Your task to perform on an android device: Search for "bose soundsport free" on newegg.com, select the first entry, and add it to the cart. Image 0: 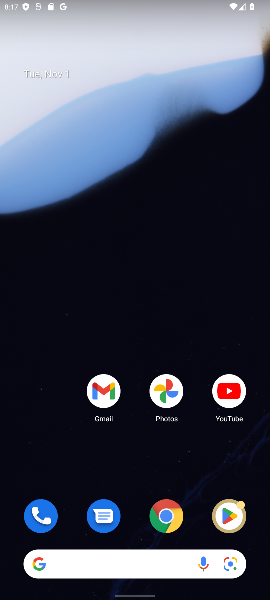
Step 0: press home button
Your task to perform on an android device: Search for "bose soundsport free" on newegg.com, select the first entry, and add it to the cart. Image 1: 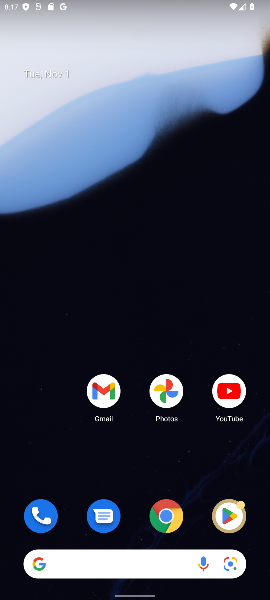
Step 1: drag from (143, 470) to (141, 73)
Your task to perform on an android device: Search for "bose soundsport free" on newegg.com, select the first entry, and add it to the cart. Image 2: 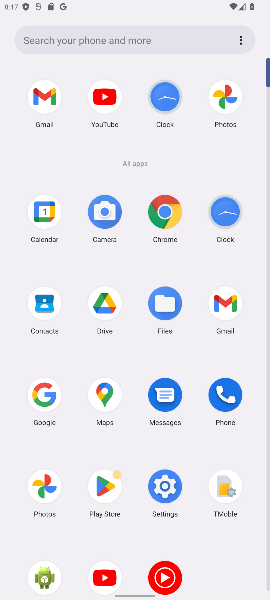
Step 2: click (168, 207)
Your task to perform on an android device: Search for "bose soundsport free" on newegg.com, select the first entry, and add it to the cart. Image 3: 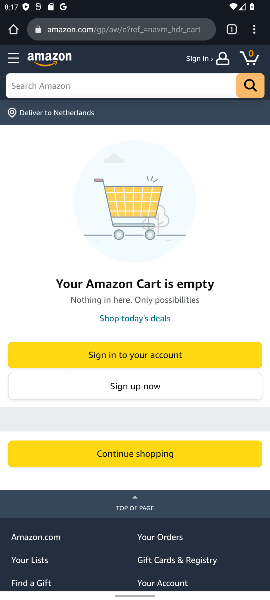
Step 3: click (85, 26)
Your task to perform on an android device: Search for "bose soundsport free" on newegg.com, select the first entry, and add it to the cart. Image 4: 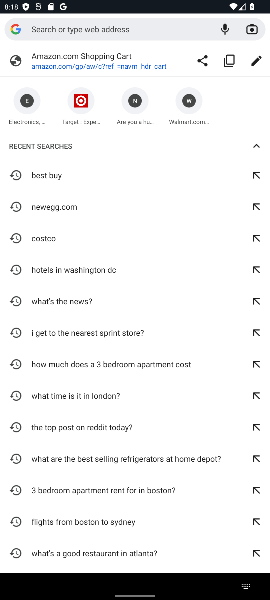
Step 4: type "newegg.com"
Your task to perform on an android device: Search for "bose soundsport free" on newegg.com, select the first entry, and add it to the cart. Image 5: 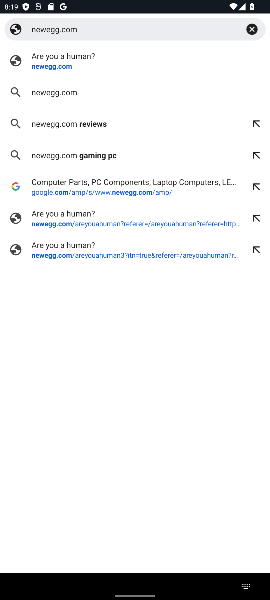
Step 5: click (60, 96)
Your task to perform on an android device: Search for "bose soundsport free" on newegg.com, select the first entry, and add it to the cart. Image 6: 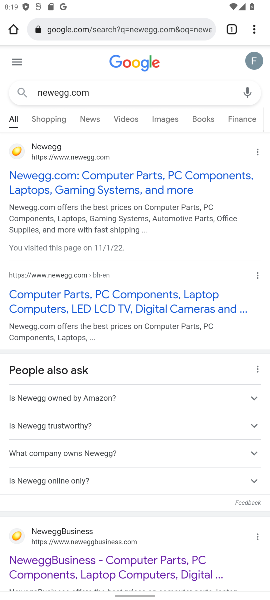
Step 6: click (90, 189)
Your task to perform on an android device: Search for "bose soundsport free" on newegg.com, select the first entry, and add it to the cart. Image 7: 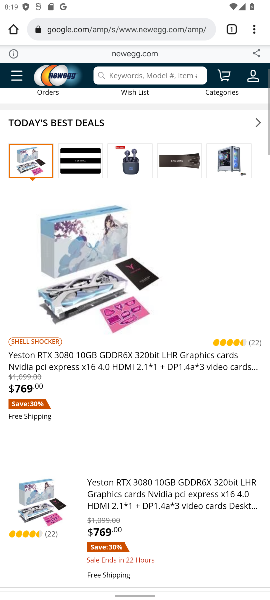
Step 7: click (89, 287)
Your task to perform on an android device: Search for "bose soundsport free" on newegg.com, select the first entry, and add it to the cart. Image 8: 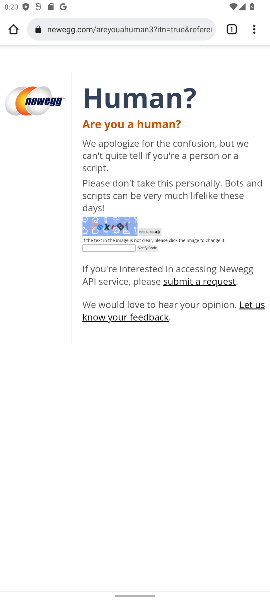
Step 8: press back button
Your task to perform on an android device: Search for "bose soundsport free" on newegg.com, select the first entry, and add it to the cart. Image 9: 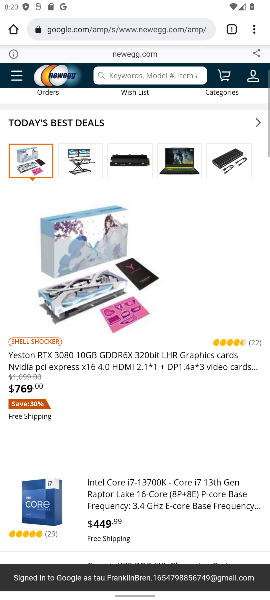
Step 9: click (100, 359)
Your task to perform on an android device: Search for "bose soundsport free" on newegg.com, select the first entry, and add it to the cart. Image 10: 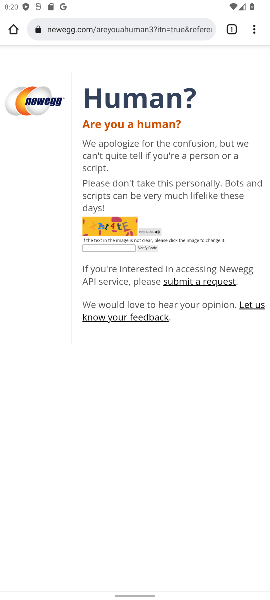
Step 10: task complete